Your task to perform on an android device: turn on sleep mode Image 0: 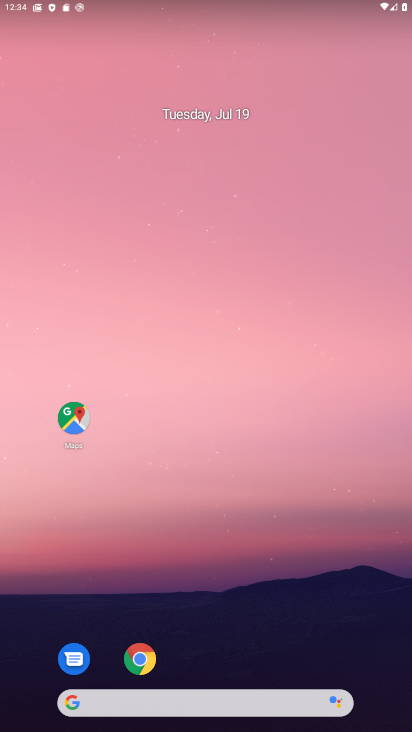
Step 0: drag from (237, 672) to (237, 294)
Your task to perform on an android device: turn on sleep mode Image 1: 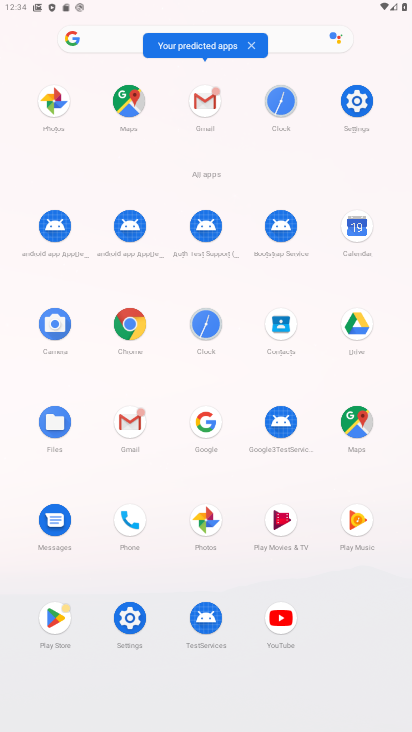
Step 1: click (122, 621)
Your task to perform on an android device: turn on sleep mode Image 2: 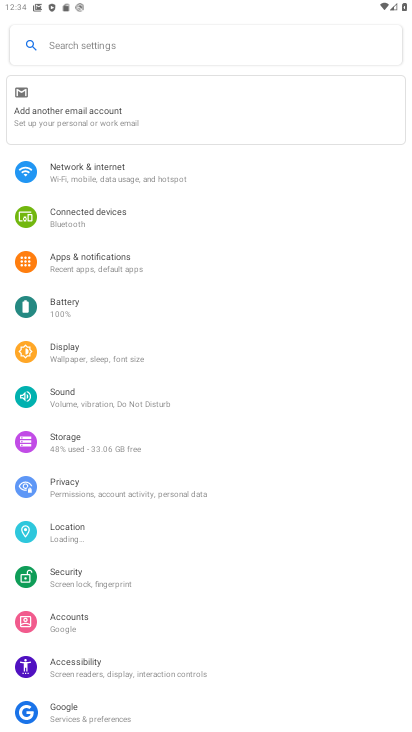
Step 2: click (88, 361)
Your task to perform on an android device: turn on sleep mode Image 3: 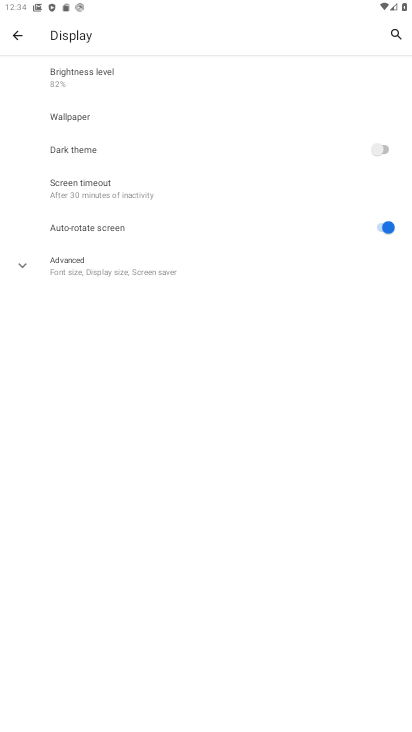
Step 3: click (163, 262)
Your task to perform on an android device: turn on sleep mode Image 4: 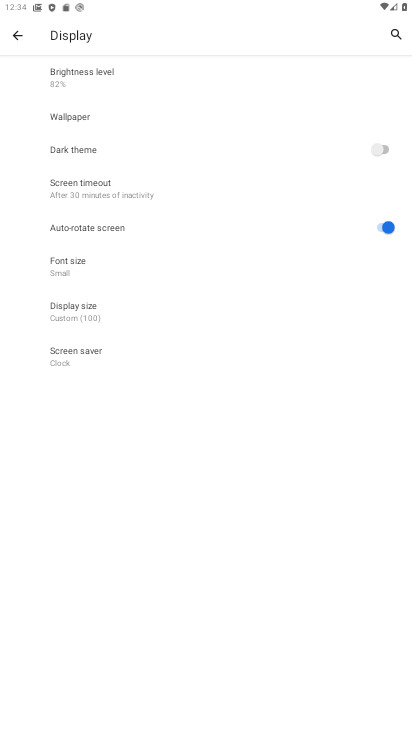
Step 4: task complete